Your task to perform on an android device: View the shopping cart on newegg.com. Search for macbook on newegg.com, select the first entry, add it to the cart, then select checkout. Image 0: 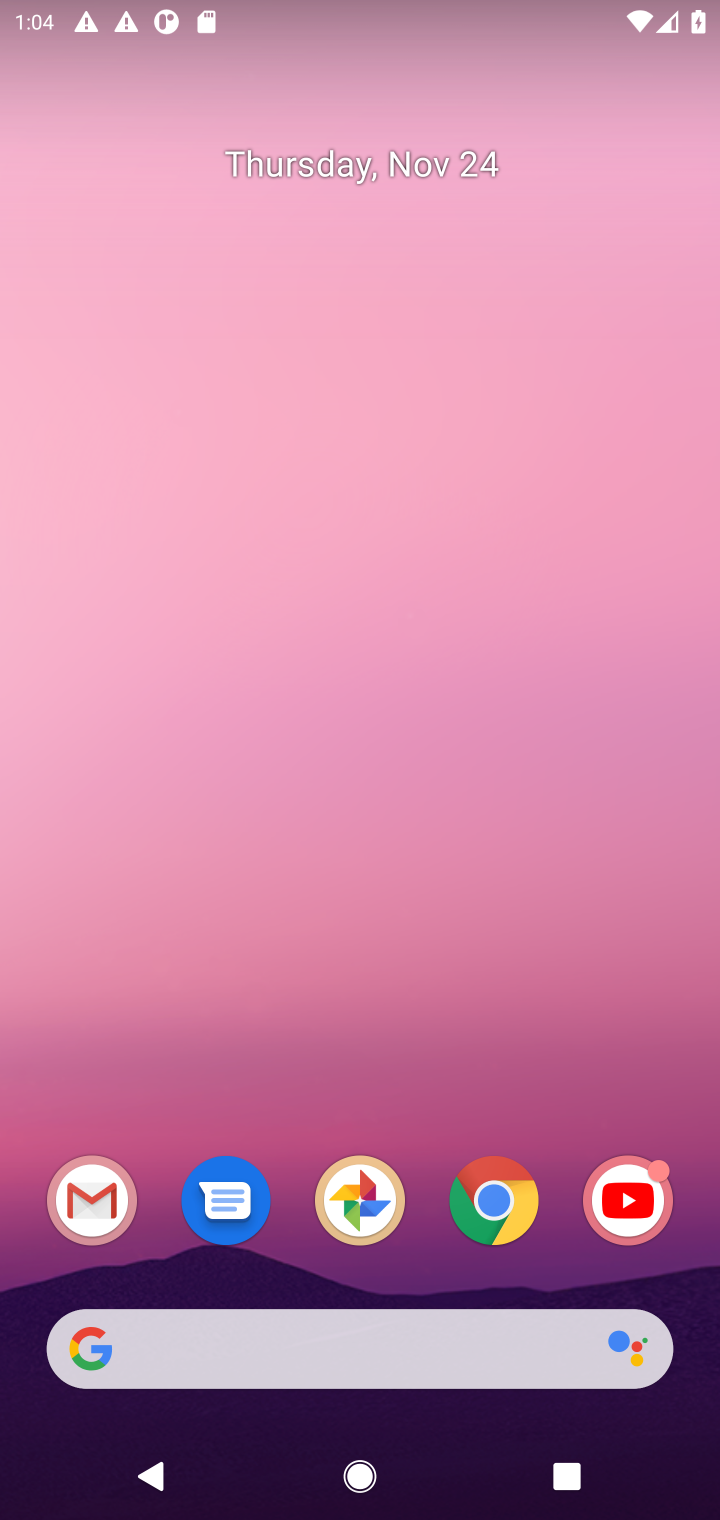
Step 0: click (267, 1347)
Your task to perform on an android device: View the shopping cart on newegg.com. Search for macbook on newegg.com, select the first entry, add it to the cart, then select checkout. Image 1: 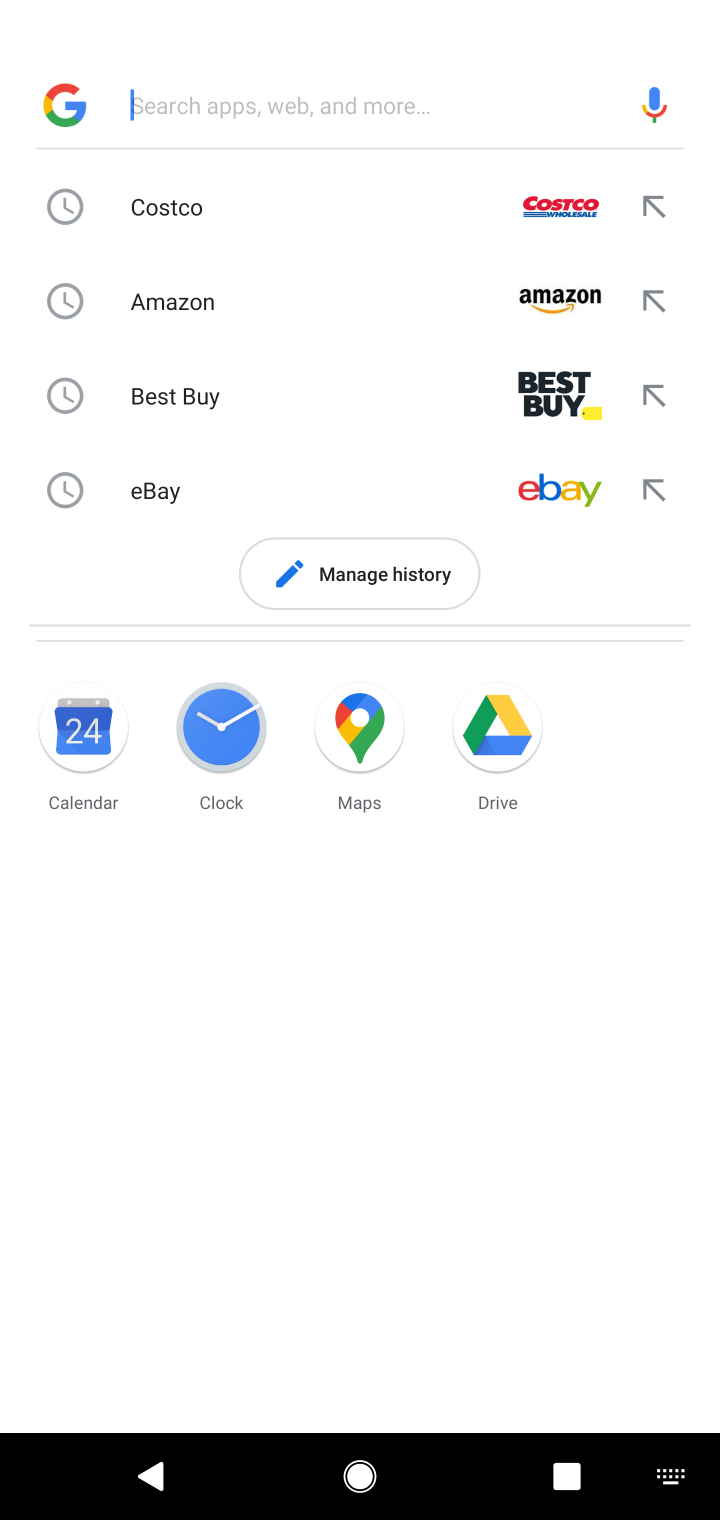
Step 1: type "newegg"
Your task to perform on an android device: View the shopping cart on newegg.com. Search for macbook on newegg.com, select the first entry, add it to the cart, then select checkout. Image 2: 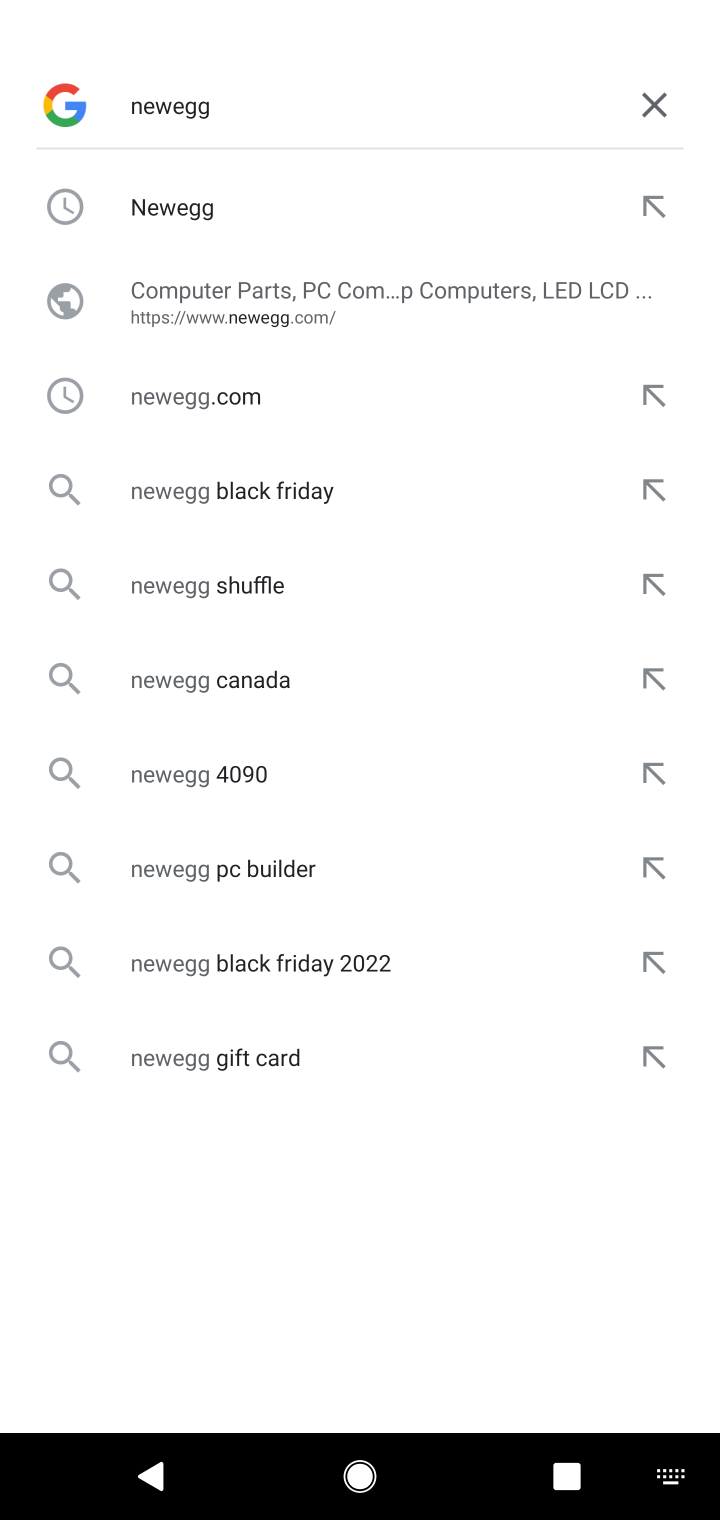
Step 2: click (261, 325)
Your task to perform on an android device: View the shopping cart on newegg.com. Search for macbook on newegg.com, select the first entry, add it to the cart, then select checkout. Image 3: 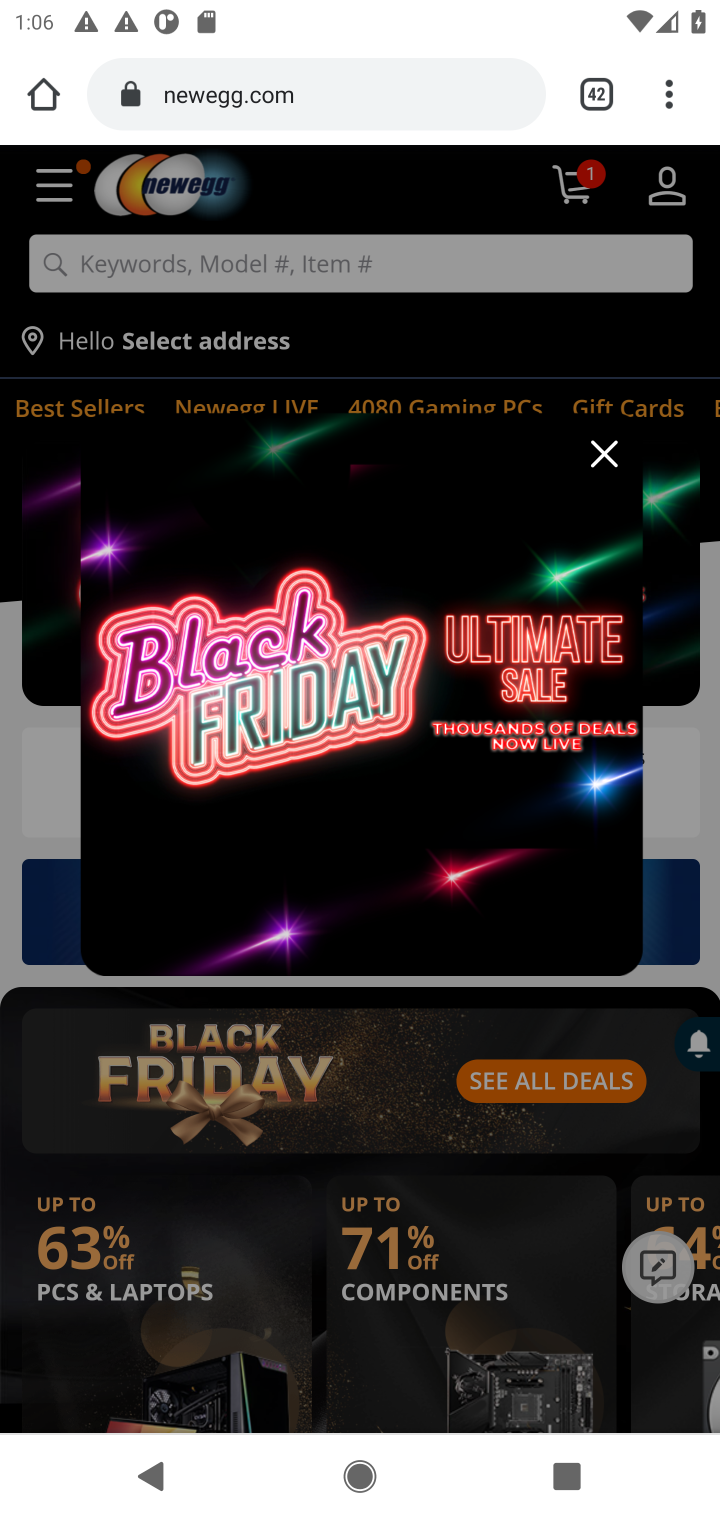
Step 3: task complete